Your task to perform on an android device: Open Google Chrome and open the bookmarks view Image 0: 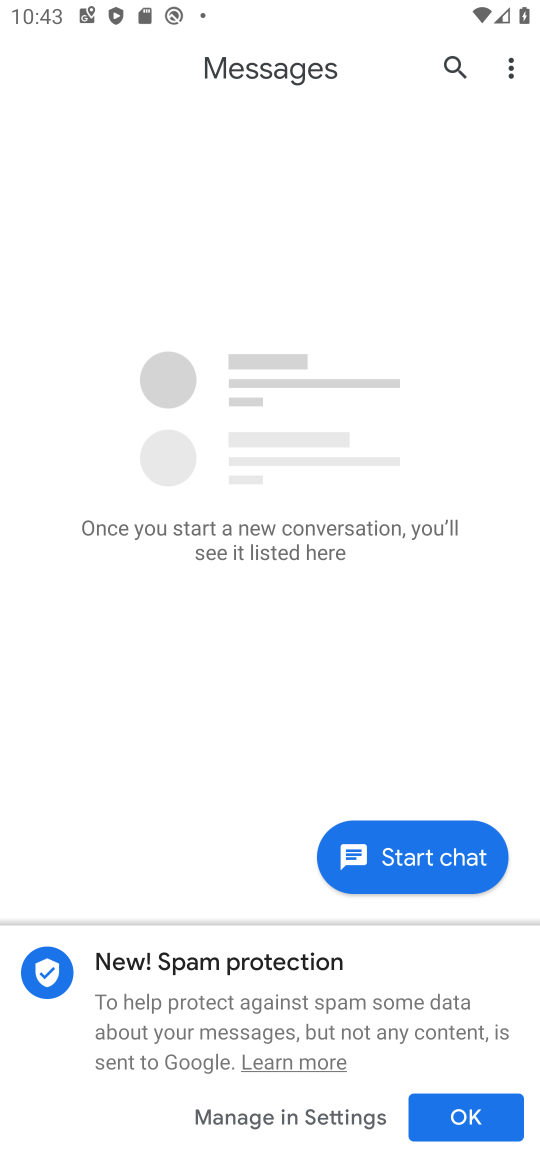
Step 0: press back button
Your task to perform on an android device: Open Google Chrome and open the bookmarks view Image 1: 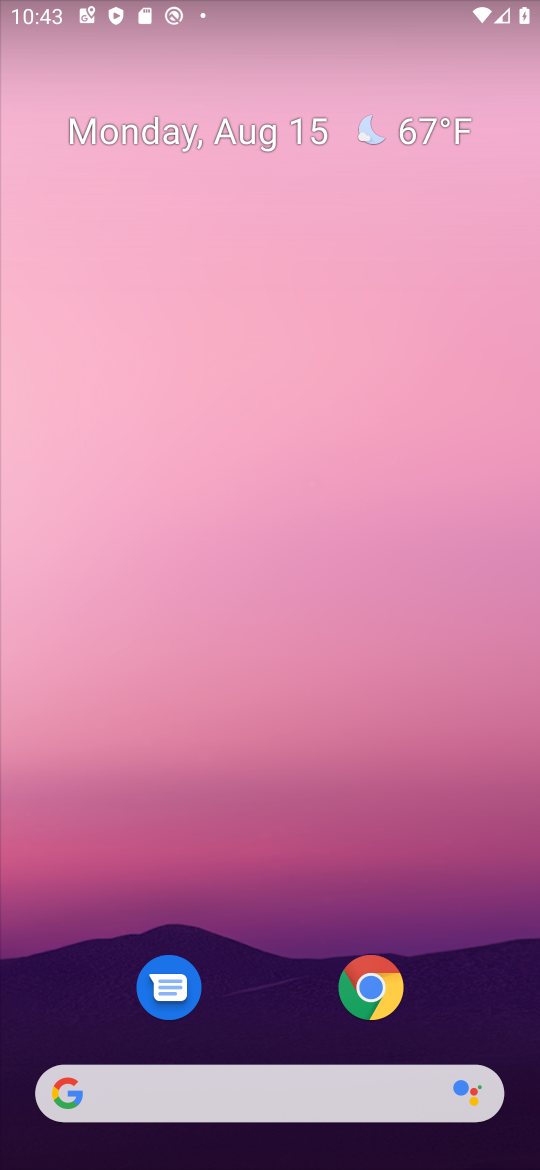
Step 1: drag from (310, 1051) to (223, 94)
Your task to perform on an android device: Open Google Chrome and open the bookmarks view Image 2: 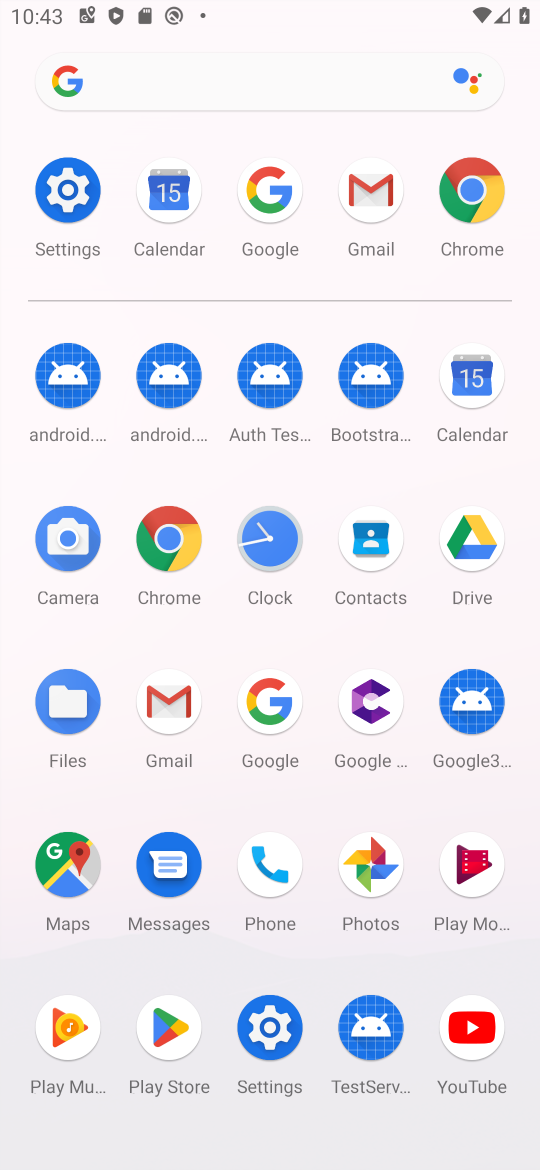
Step 2: click (156, 528)
Your task to perform on an android device: Open Google Chrome and open the bookmarks view Image 3: 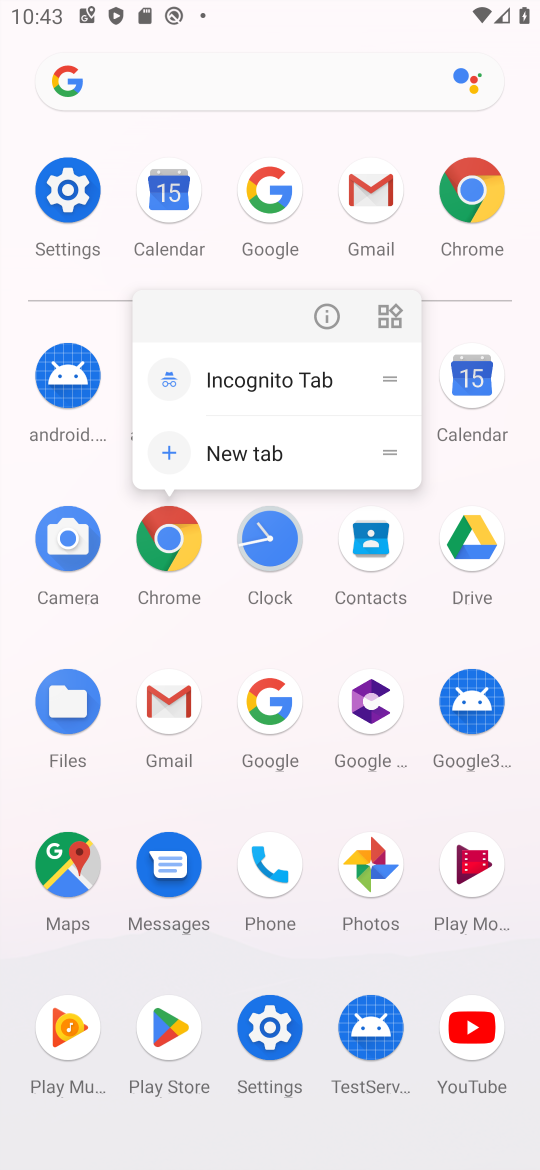
Step 3: click (175, 576)
Your task to perform on an android device: Open Google Chrome and open the bookmarks view Image 4: 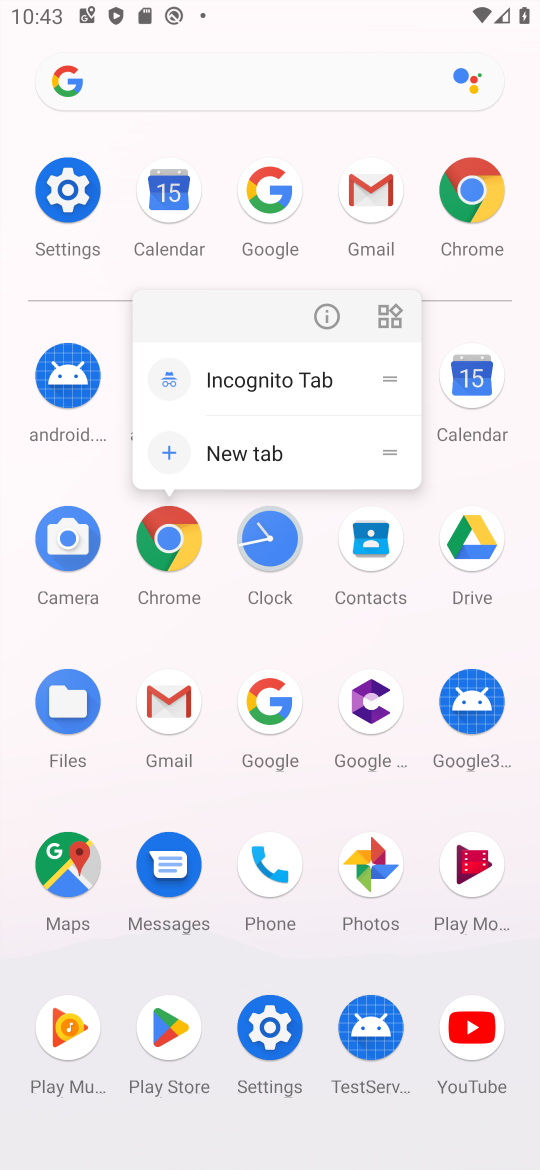
Step 4: click (174, 574)
Your task to perform on an android device: Open Google Chrome and open the bookmarks view Image 5: 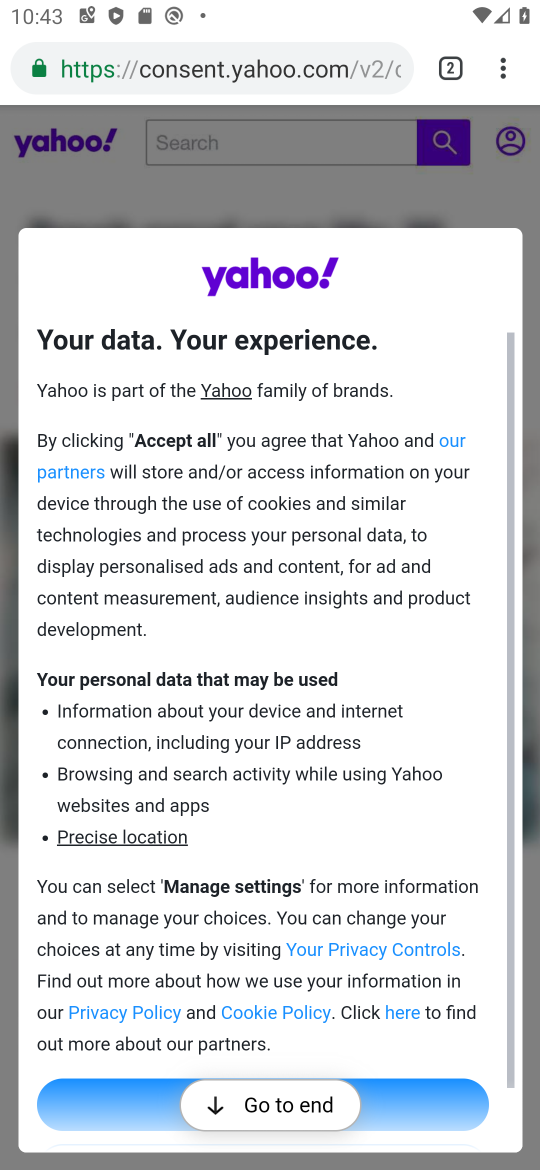
Step 5: click (499, 57)
Your task to perform on an android device: Open Google Chrome and open the bookmarks view Image 6: 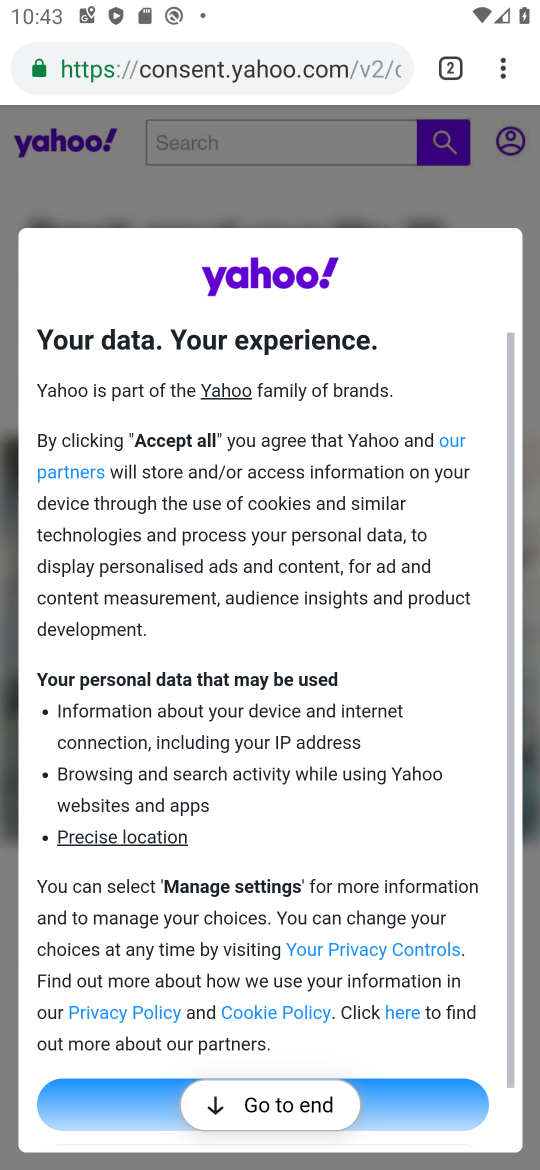
Step 6: task complete